Your task to perform on an android device: open a bookmark in the chrome app Image 0: 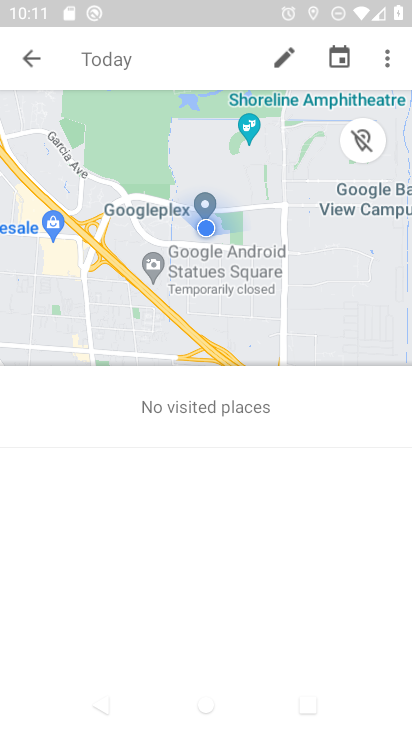
Step 0: click (140, 557)
Your task to perform on an android device: open a bookmark in the chrome app Image 1: 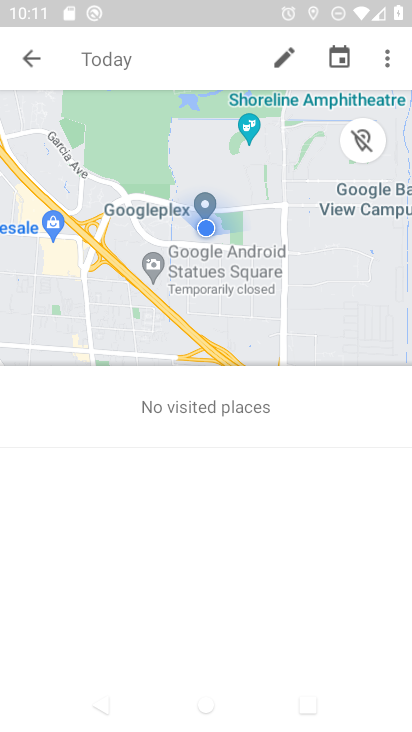
Step 1: press home button
Your task to perform on an android device: open a bookmark in the chrome app Image 2: 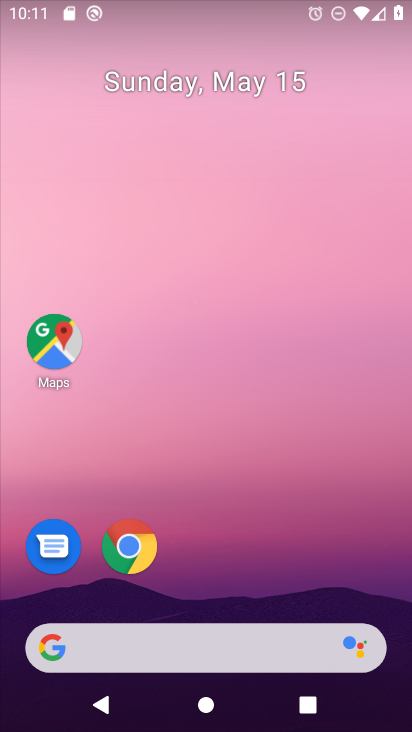
Step 2: click (133, 555)
Your task to perform on an android device: open a bookmark in the chrome app Image 3: 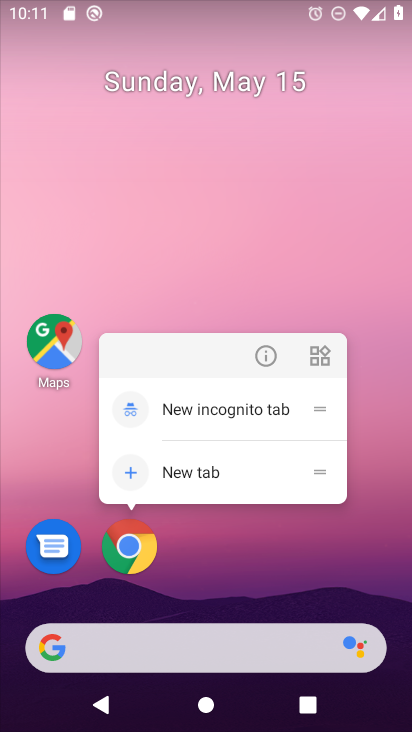
Step 3: click (129, 547)
Your task to perform on an android device: open a bookmark in the chrome app Image 4: 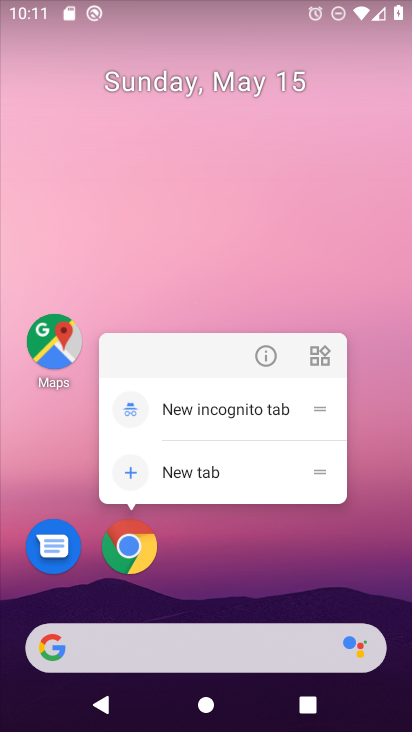
Step 4: click (127, 546)
Your task to perform on an android device: open a bookmark in the chrome app Image 5: 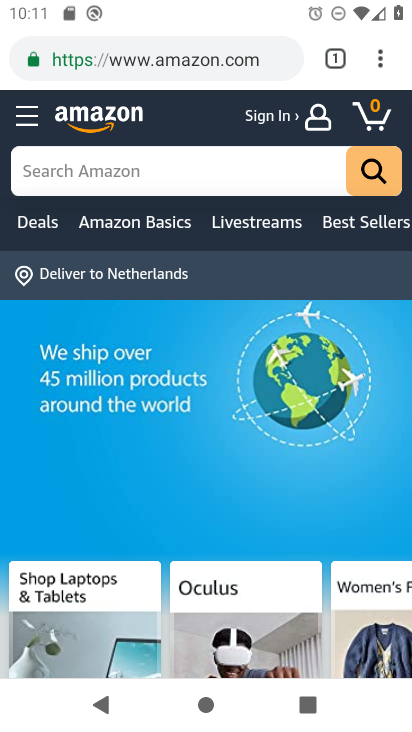
Step 5: drag from (381, 67) to (206, 222)
Your task to perform on an android device: open a bookmark in the chrome app Image 6: 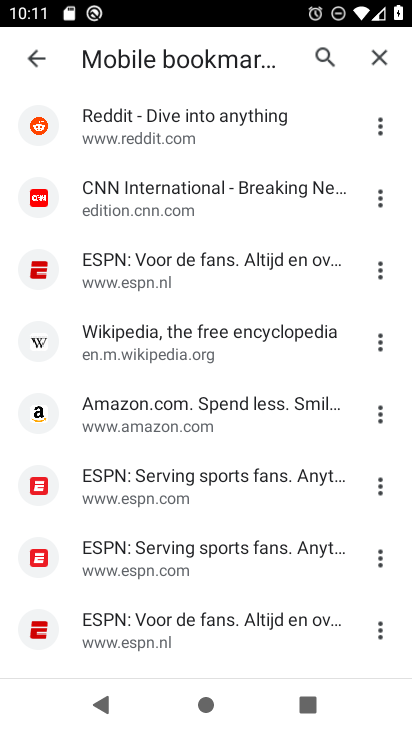
Step 6: click (204, 553)
Your task to perform on an android device: open a bookmark in the chrome app Image 7: 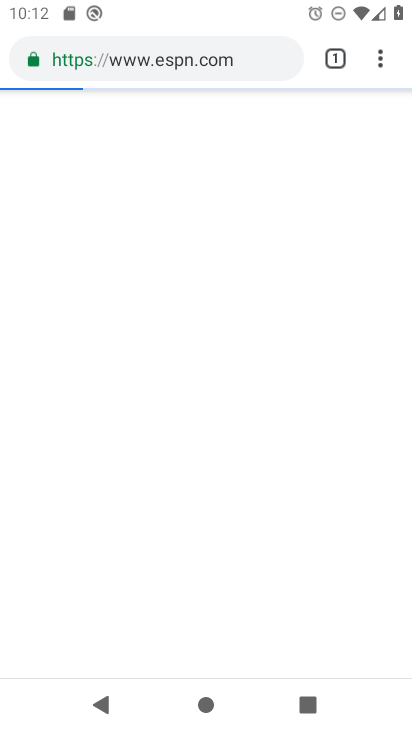
Step 7: task complete